Your task to perform on an android device: change timer sound Image 0: 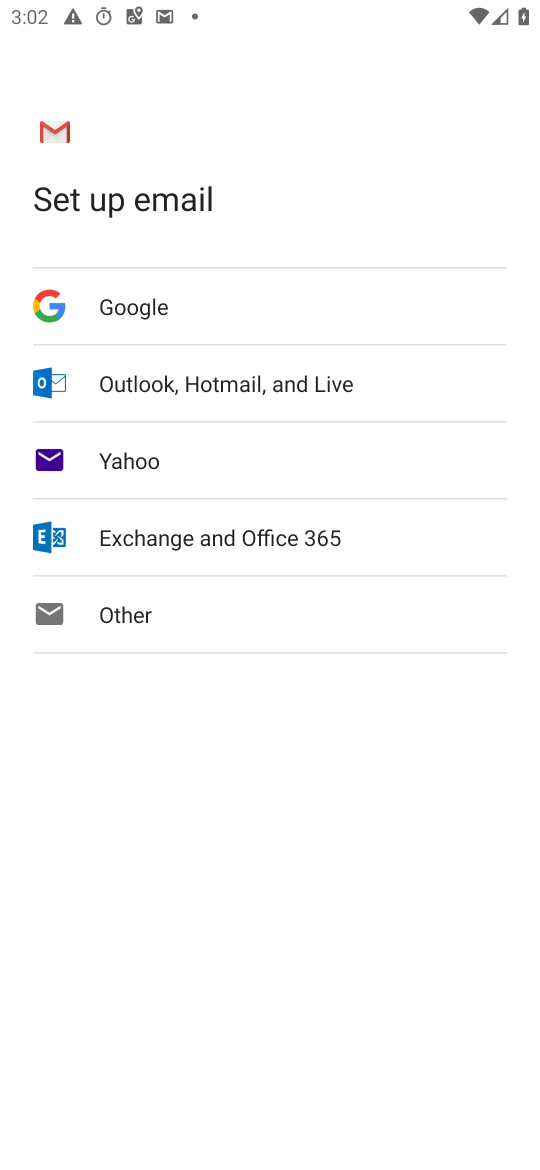
Step 0: press home button
Your task to perform on an android device: change timer sound Image 1: 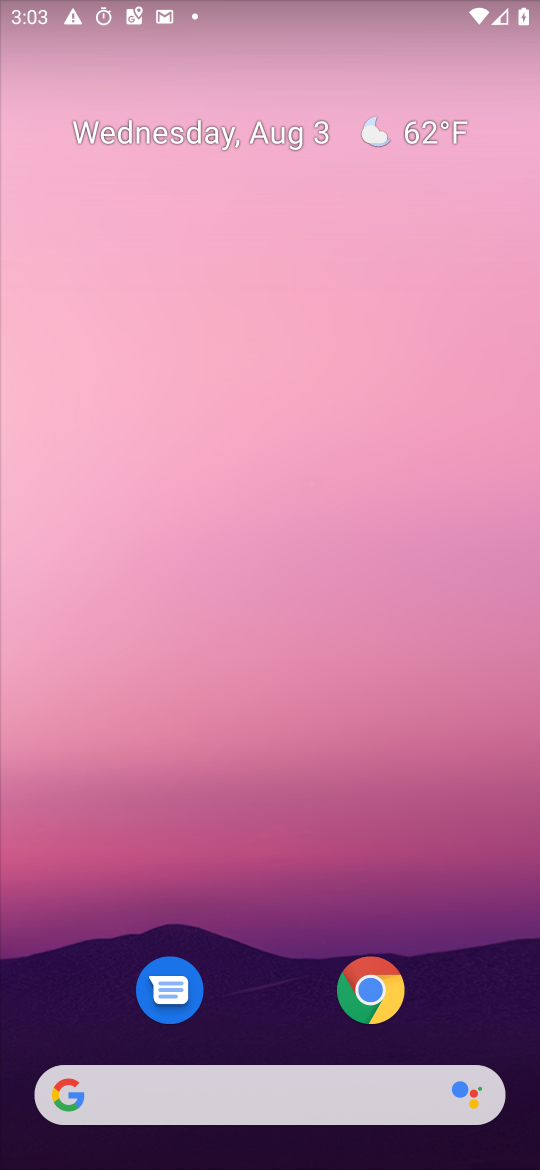
Step 1: drag from (382, 1020) to (488, 0)
Your task to perform on an android device: change timer sound Image 2: 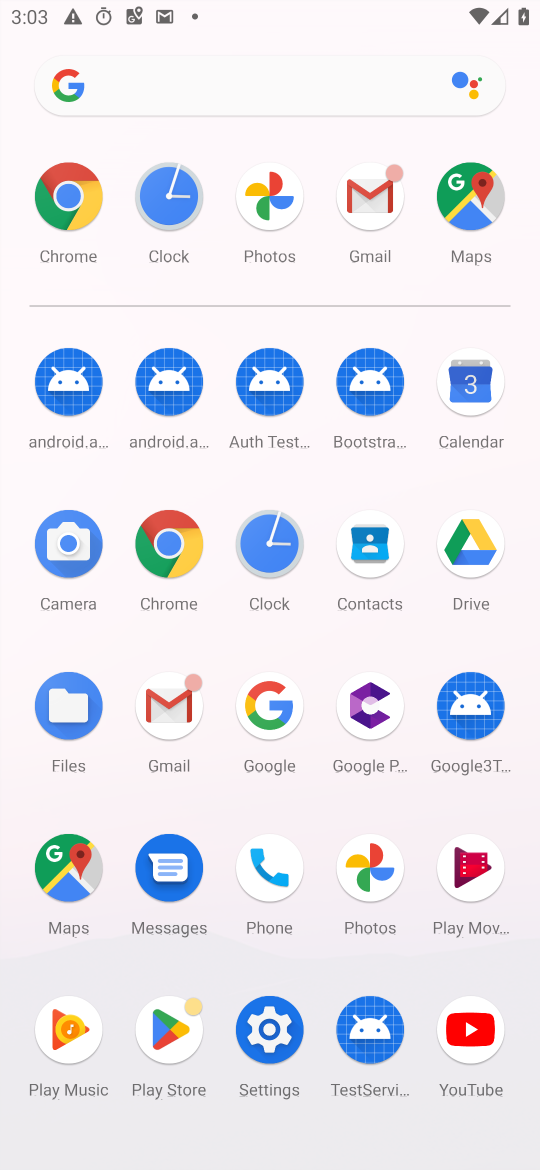
Step 2: click (282, 588)
Your task to perform on an android device: change timer sound Image 3: 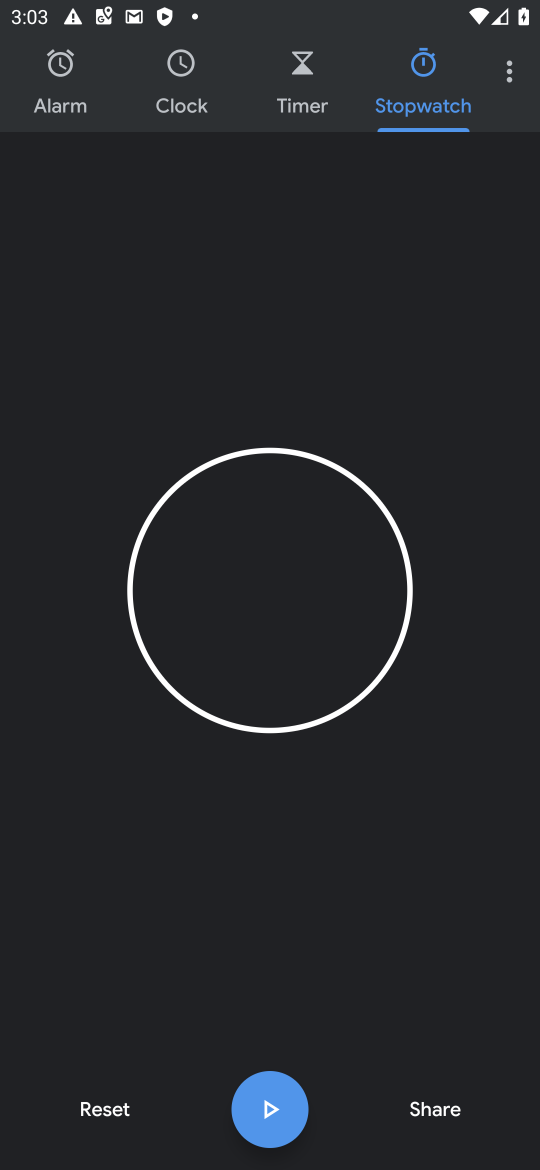
Step 3: click (503, 61)
Your task to perform on an android device: change timer sound Image 4: 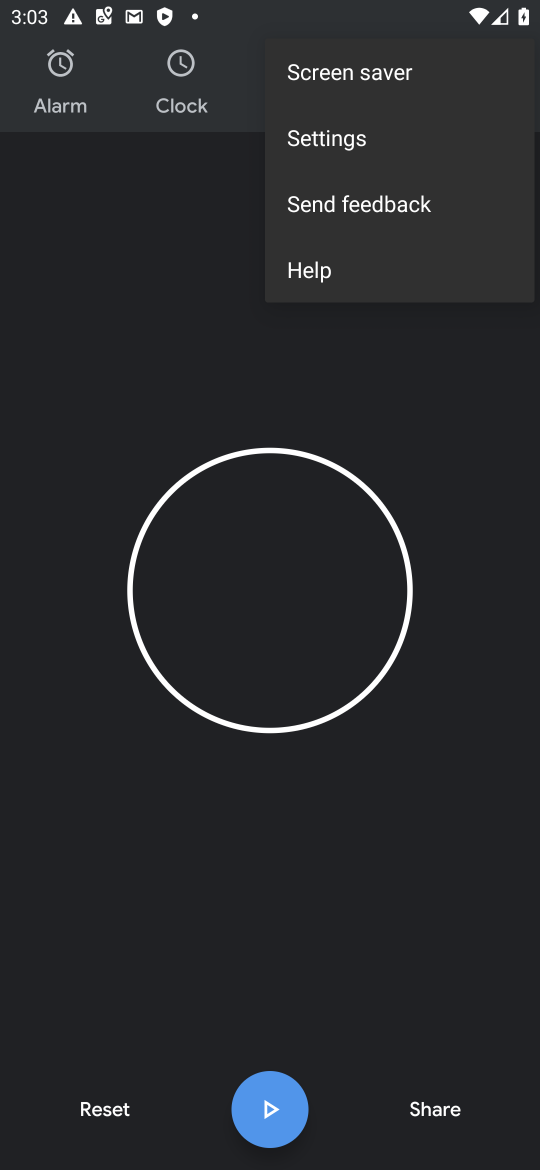
Step 4: click (359, 148)
Your task to perform on an android device: change timer sound Image 5: 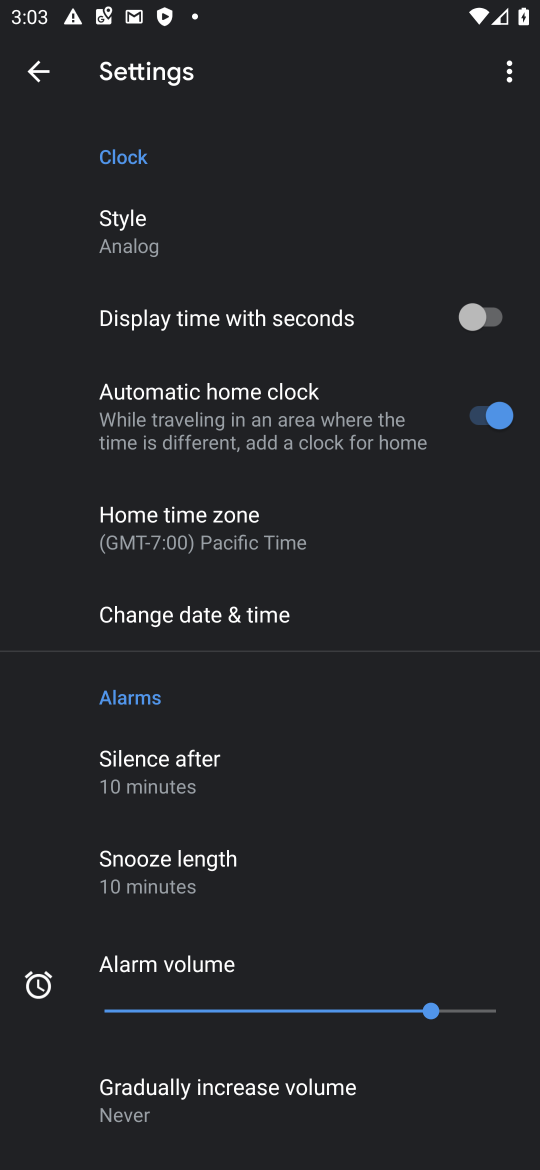
Step 5: drag from (220, 1004) to (271, 341)
Your task to perform on an android device: change timer sound Image 6: 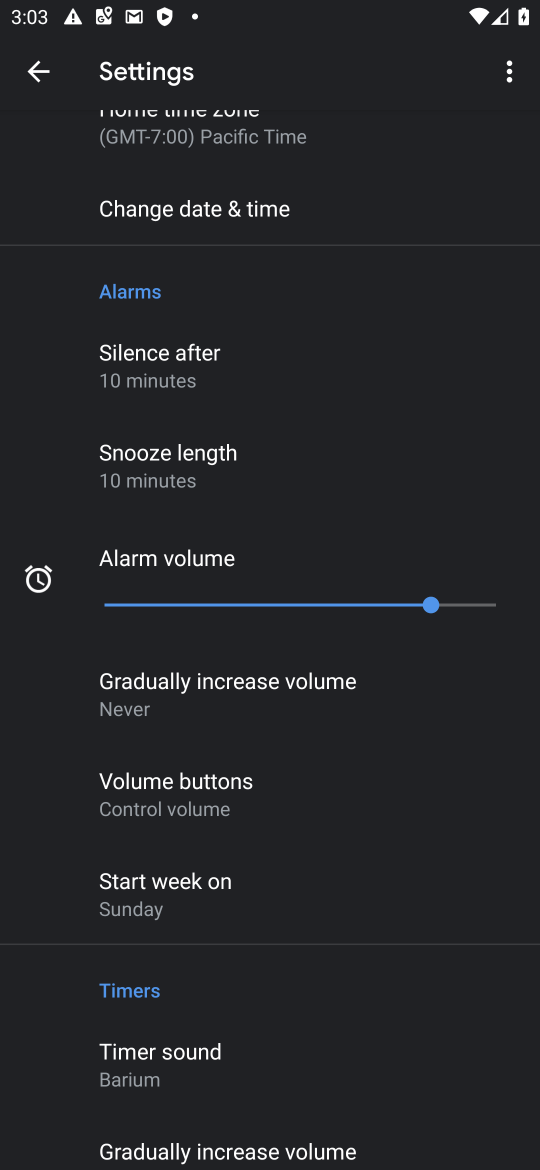
Step 6: click (166, 1080)
Your task to perform on an android device: change timer sound Image 7: 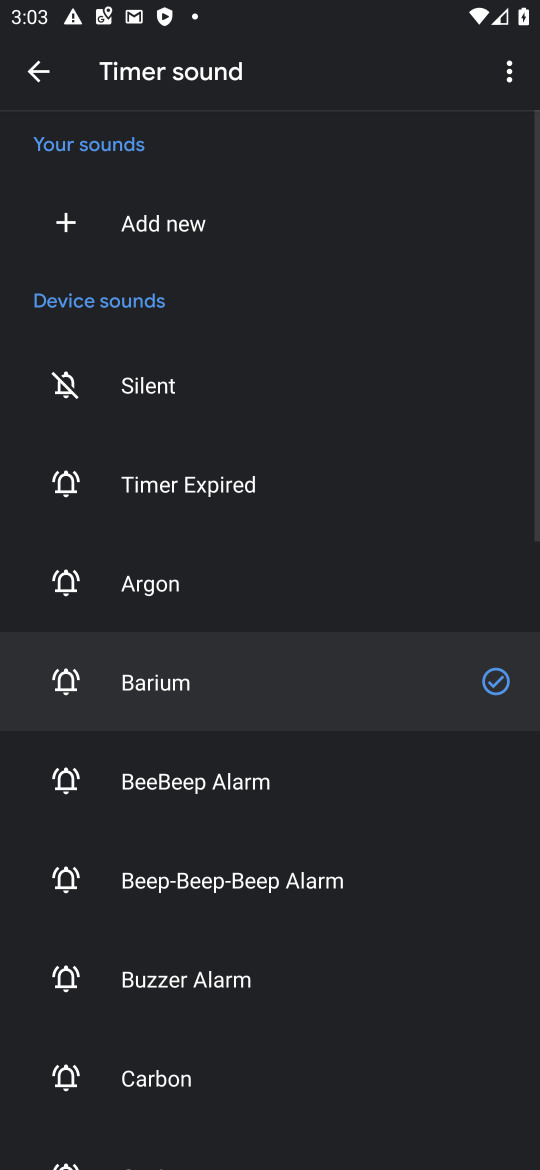
Step 7: click (129, 482)
Your task to perform on an android device: change timer sound Image 8: 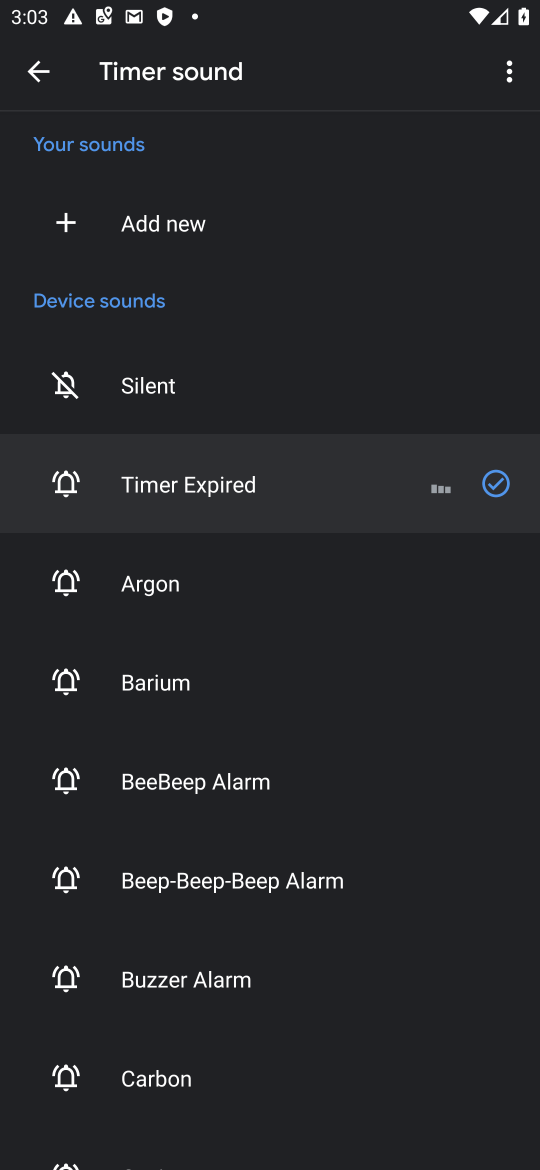
Step 8: task complete